Your task to perform on an android device: add a contact Image 0: 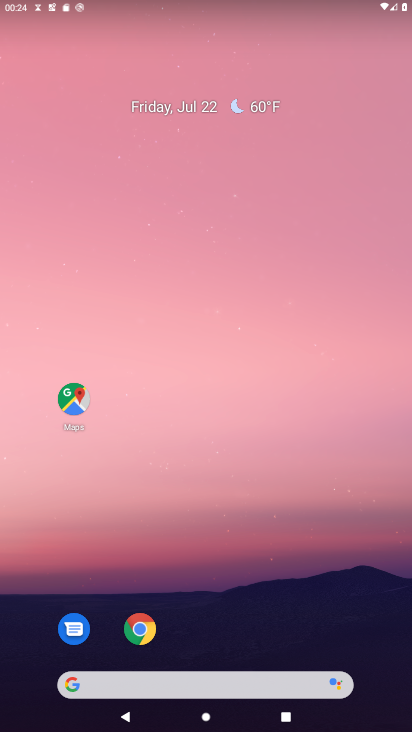
Step 0: drag from (218, 651) to (218, 193)
Your task to perform on an android device: add a contact Image 1: 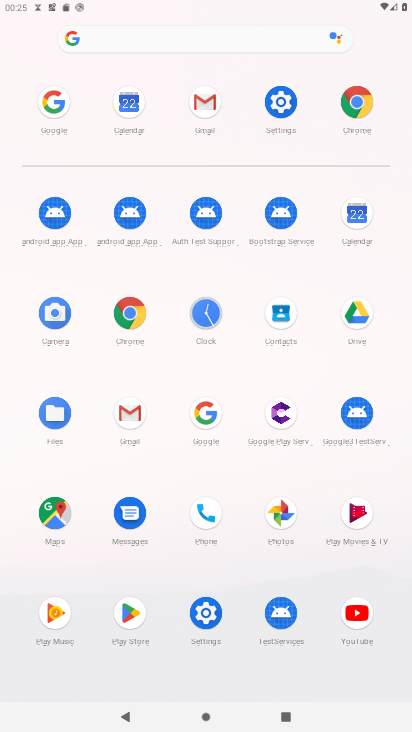
Step 1: click (213, 508)
Your task to perform on an android device: add a contact Image 2: 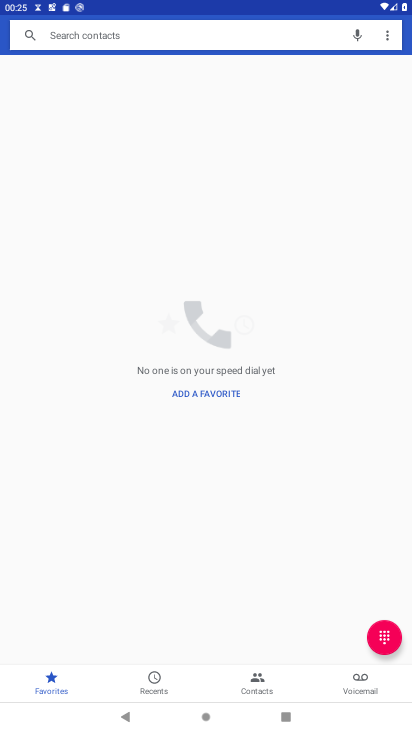
Step 2: click (200, 386)
Your task to perform on an android device: add a contact Image 3: 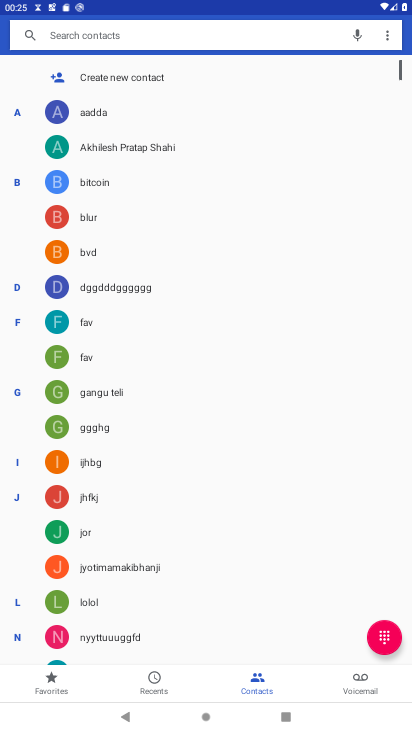
Step 3: click (125, 77)
Your task to perform on an android device: add a contact Image 4: 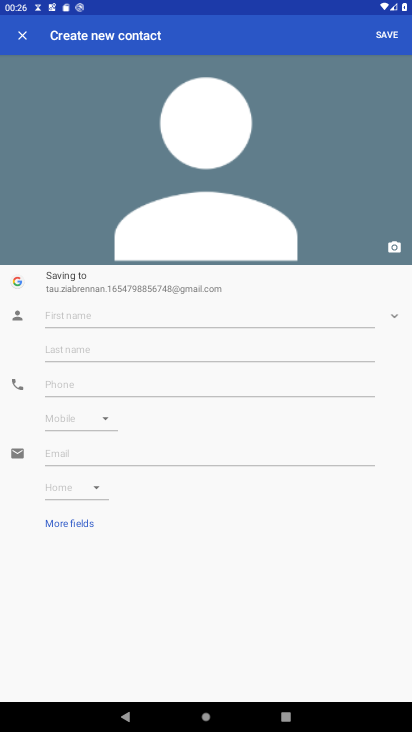
Step 4: type "dinesh parcha "
Your task to perform on an android device: add a contact Image 5: 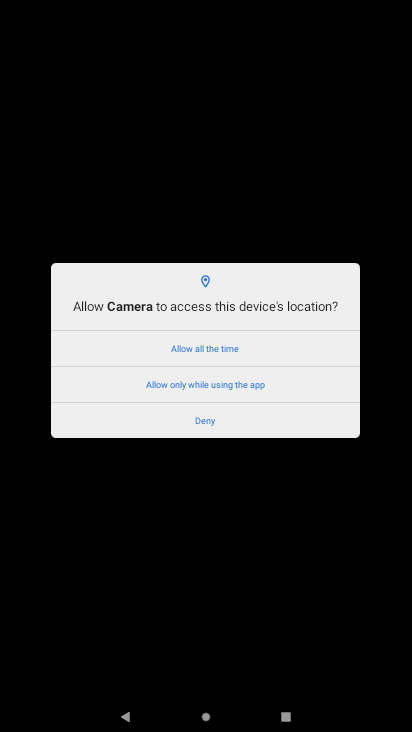
Step 5: click (227, 423)
Your task to perform on an android device: add a contact Image 6: 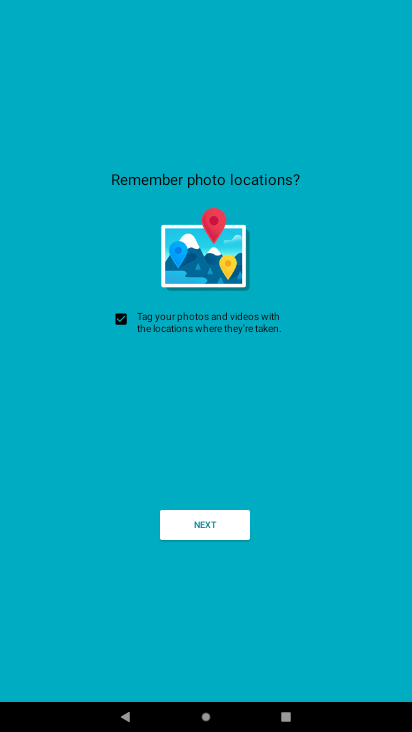
Step 6: press back button
Your task to perform on an android device: add a contact Image 7: 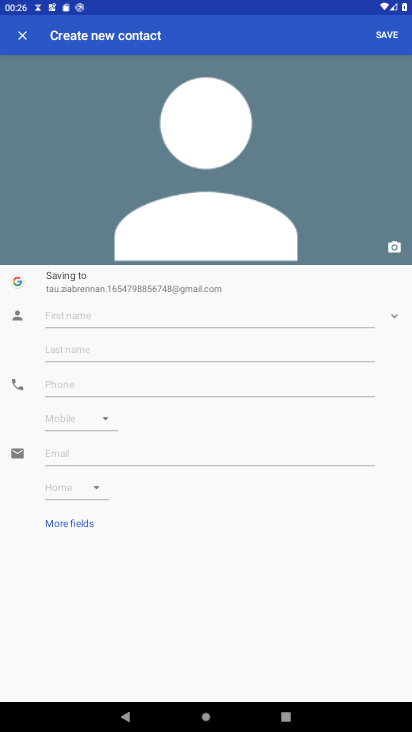
Step 7: click (122, 318)
Your task to perform on an android device: add a contact Image 8: 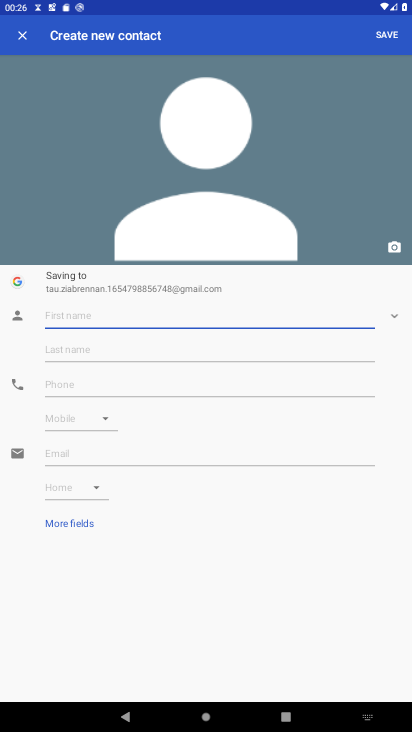
Step 8: type "tajahahaha "
Your task to perform on an android device: add a contact Image 9: 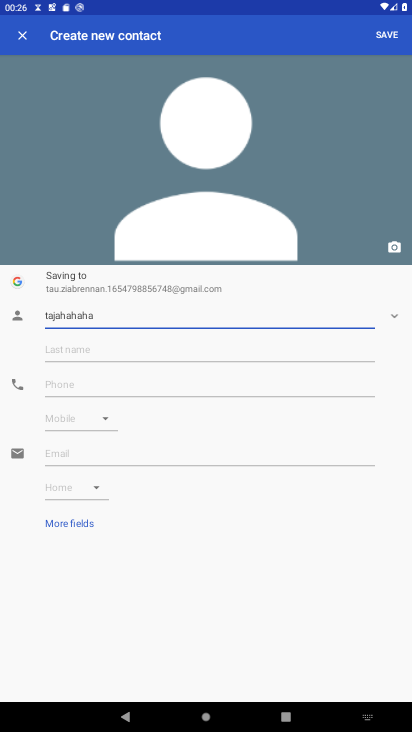
Step 9: click (110, 380)
Your task to perform on an android device: add a contact Image 10: 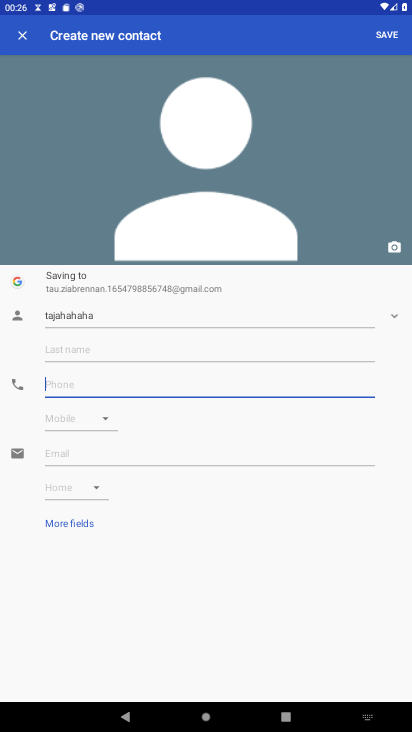
Step 10: type "12345678 "
Your task to perform on an android device: add a contact Image 11: 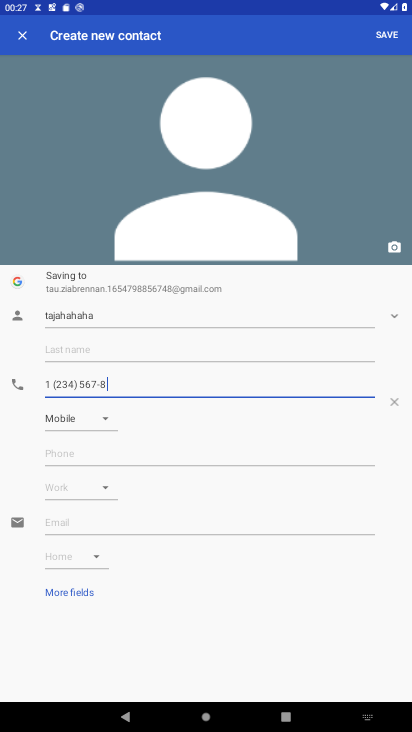
Step 11: click (380, 35)
Your task to perform on an android device: add a contact Image 12: 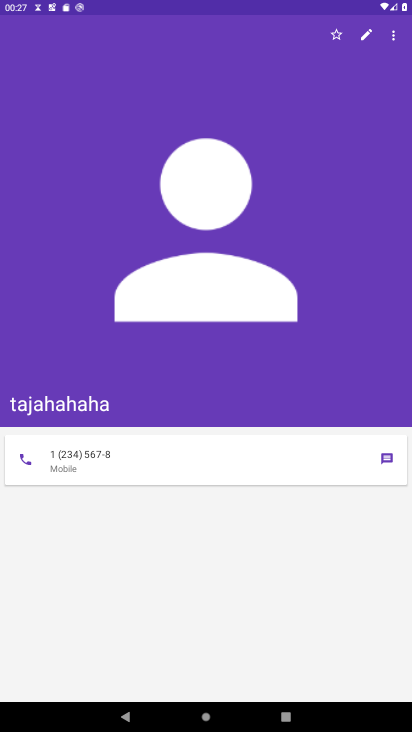
Step 12: task complete